Your task to perform on an android device: Open settings on Google Maps Image 0: 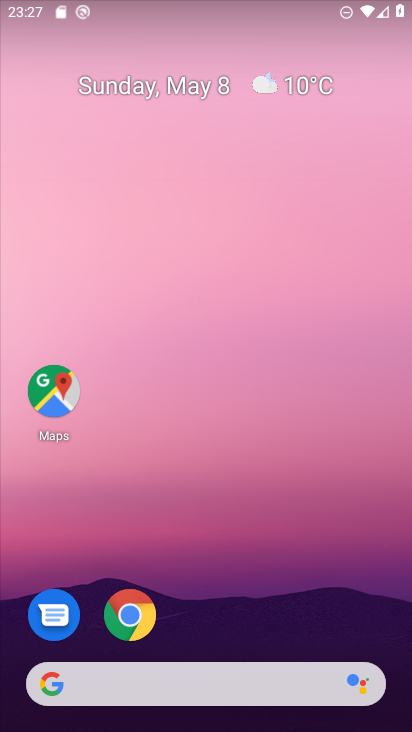
Step 0: drag from (250, 600) to (266, 107)
Your task to perform on an android device: Open settings on Google Maps Image 1: 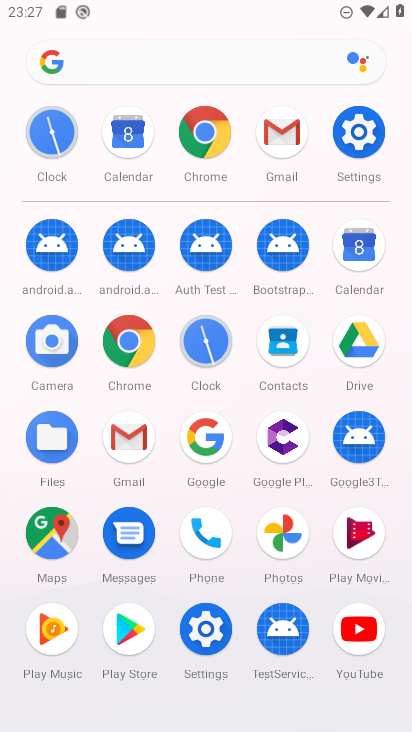
Step 1: click (48, 538)
Your task to perform on an android device: Open settings on Google Maps Image 2: 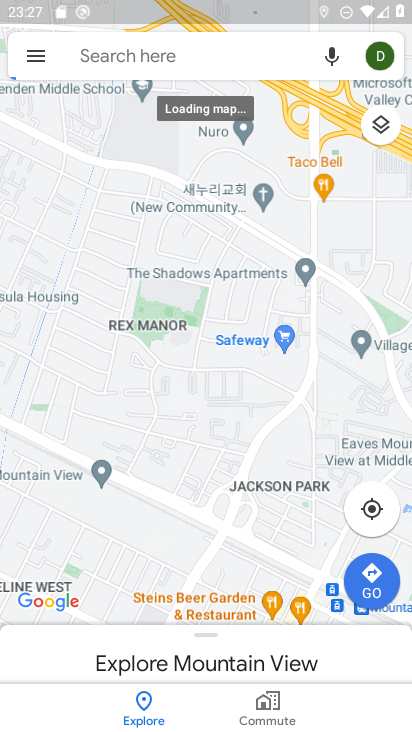
Step 2: click (44, 51)
Your task to perform on an android device: Open settings on Google Maps Image 3: 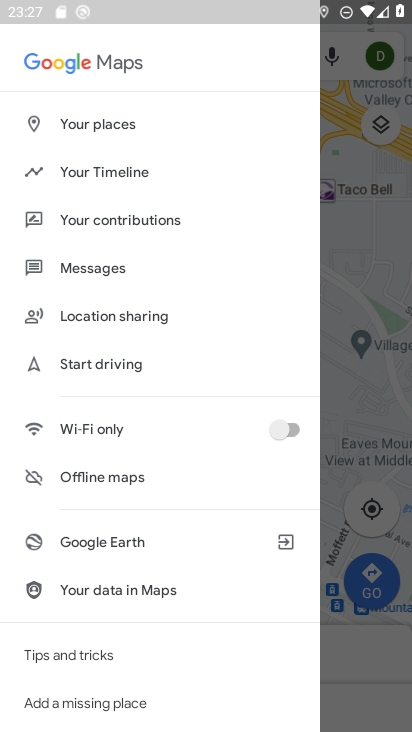
Step 3: drag from (174, 629) to (204, 5)
Your task to perform on an android device: Open settings on Google Maps Image 4: 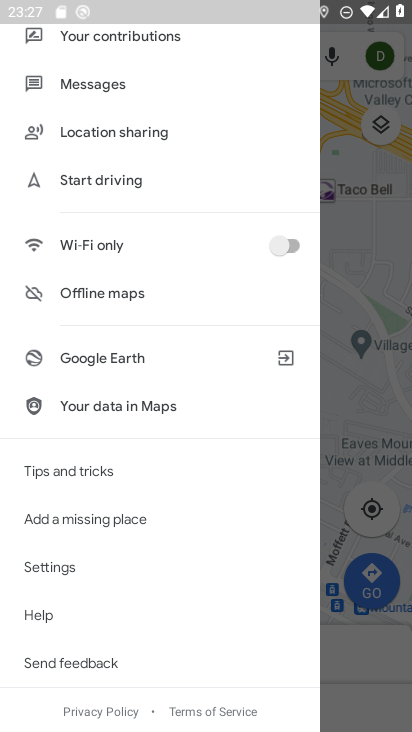
Step 4: click (59, 560)
Your task to perform on an android device: Open settings on Google Maps Image 5: 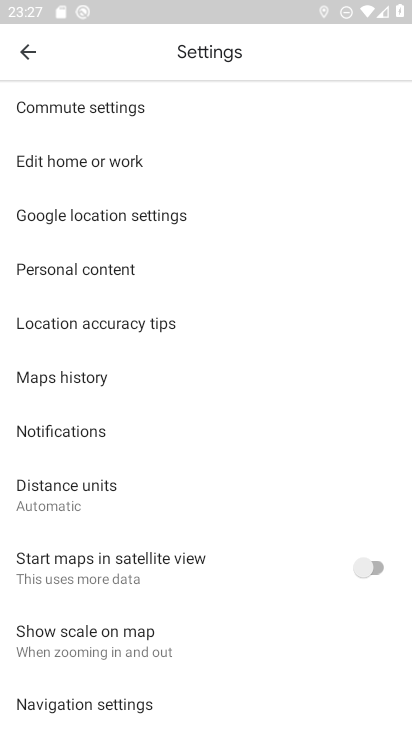
Step 5: task complete